Your task to perform on an android device: all mails in gmail Image 0: 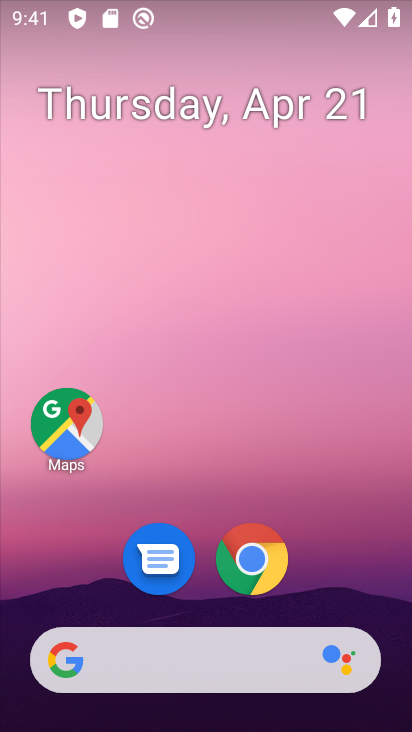
Step 0: drag from (320, 581) to (345, 177)
Your task to perform on an android device: all mails in gmail Image 1: 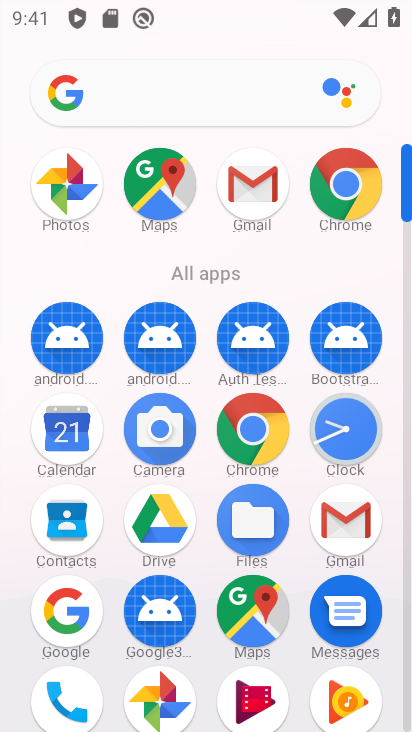
Step 1: click (273, 191)
Your task to perform on an android device: all mails in gmail Image 2: 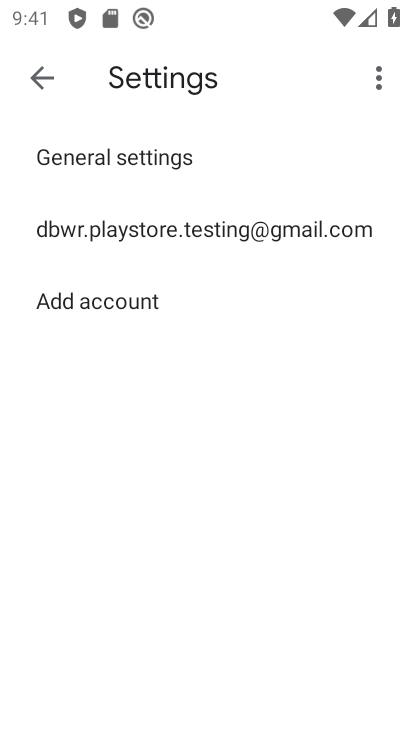
Step 2: click (265, 226)
Your task to perform on an android device: all mails in gmail Image 3: 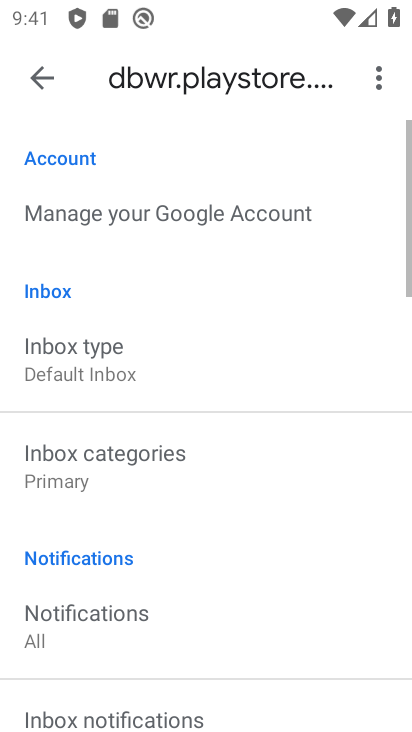
Step 3: click (251, 584)
Your task to perform on an android device: all mails in gmail Image 4: 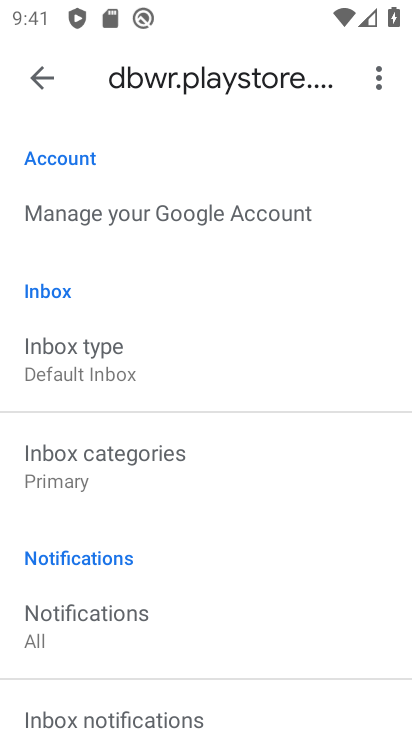
Step 4: press back button
Your task to perform on an android device: all mails in gmail Image 5: 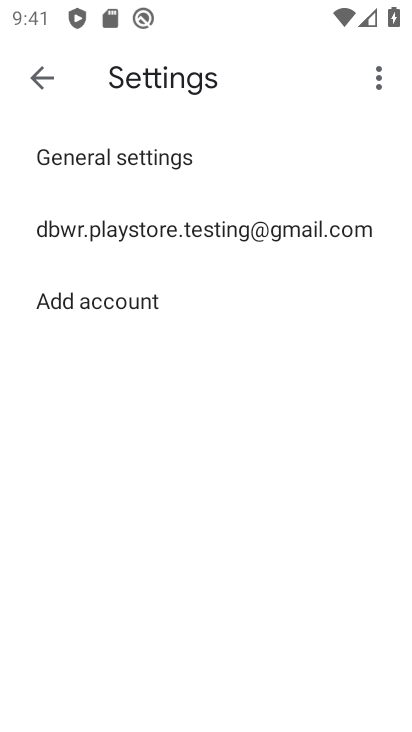
Step 5: press back button
Your task to perform on an android device: all mails in gmail Image 6: 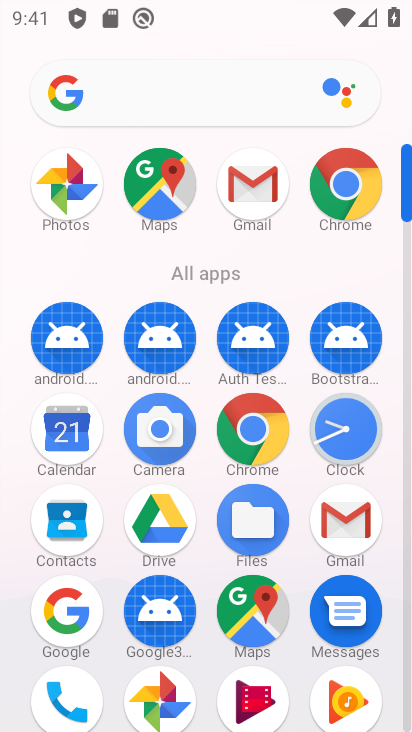
Step 6: click (330, 516)
Your task to perform on an android device: all mails in gmail Image 7: 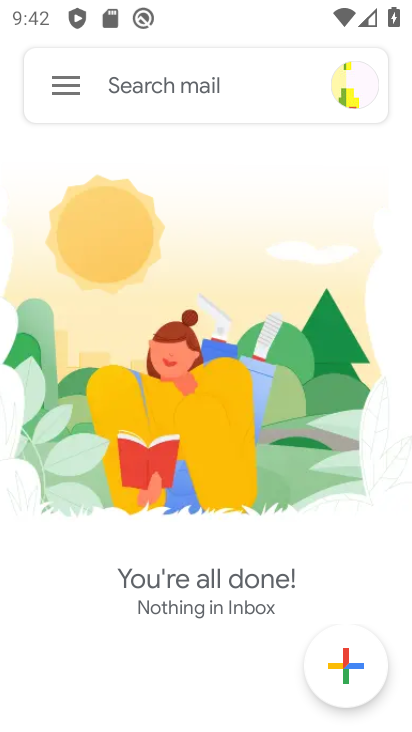
Step 7: click (63, 93)
Your task to perform on an android device: all mails in gmail Image 8: 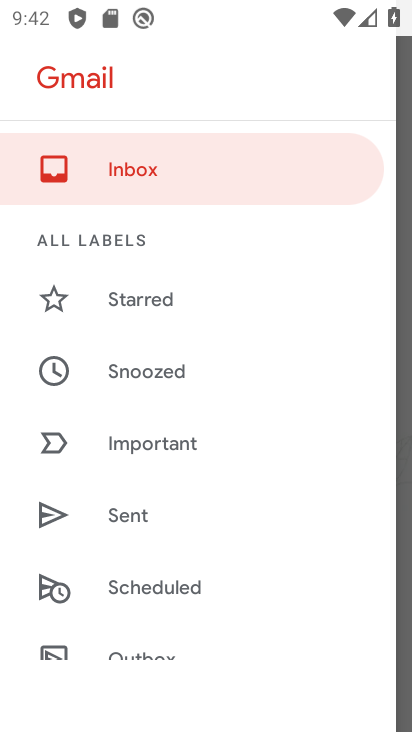
Step 8: drag from (214, 635) to (212, 245)
Your task to perform on an android device: all mails in gmail Image 9: 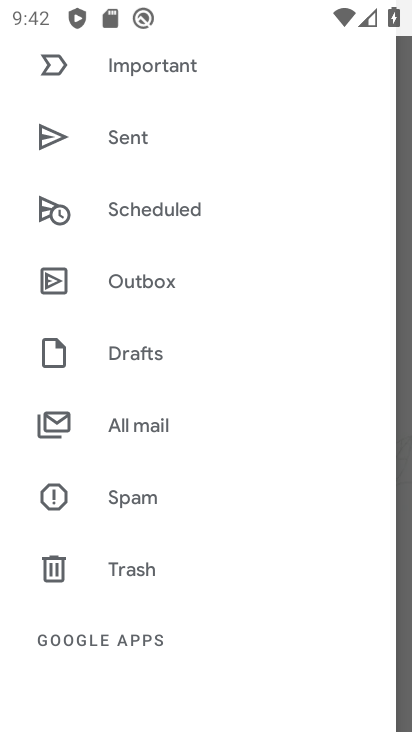
Step 9: drag from (236, 212) to (231, 577)
Your task to perform on an android device: all mails in gmail Image 10: 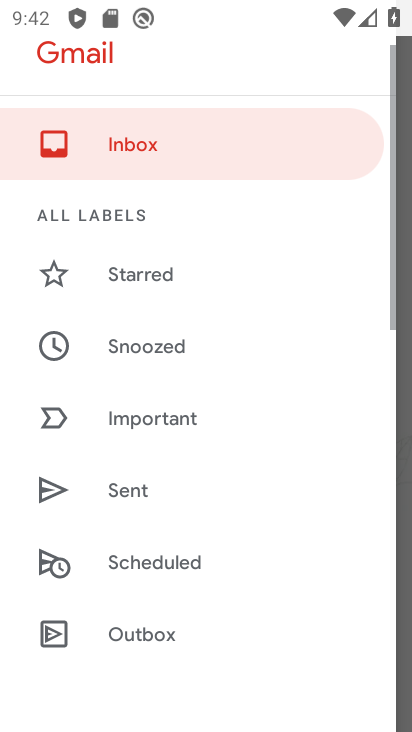
Step 10: drag from (233, 317) to (246, 182)
Your task to perform on an android device: all mails in gmail Image 11: 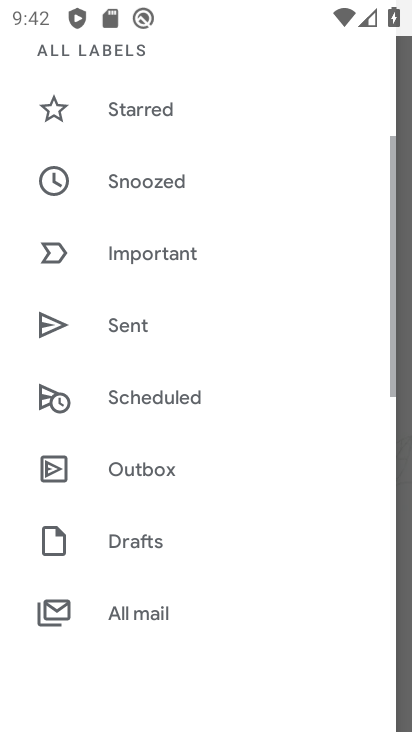
Step 11: drag from (244, 553) to (266, 121)
Your task to perform on an android device: all mails in gmail Image 12: 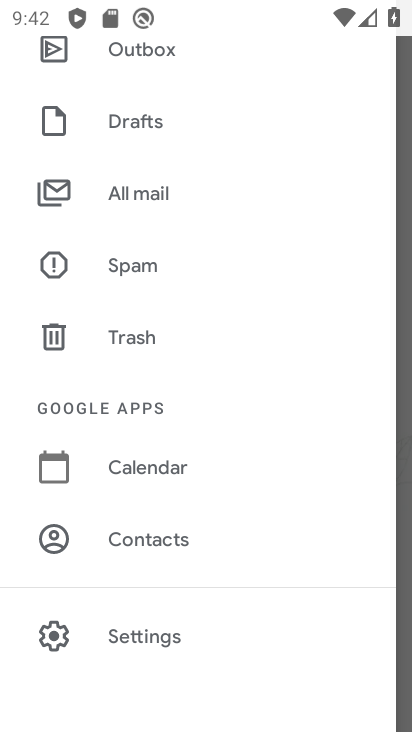
Step 12: click (158, 190)
Your task to perform on an android device: all mails in gmail Image 13: 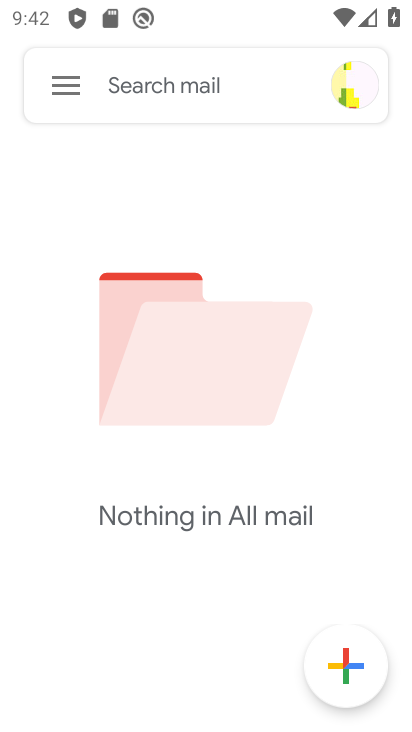
Step 13: task complete